Your task to perform on an android device: change the upload size in google photos Image 0: 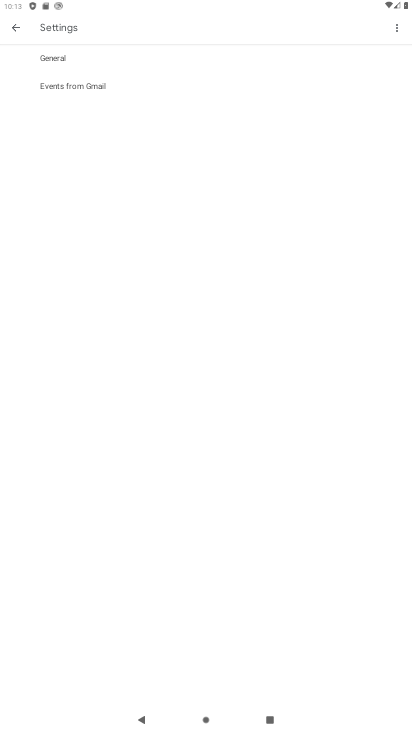
Step 0: press home button
Your task to perform on an android device: change the upload size in google photos Image 1: 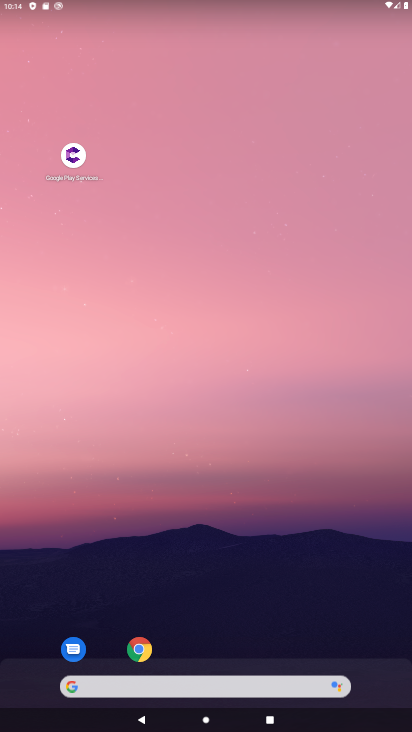
Step 1: drag from (244, 643) to (263, 82)
Your task to perform on an android device: change the upload size in google photos Image 2: 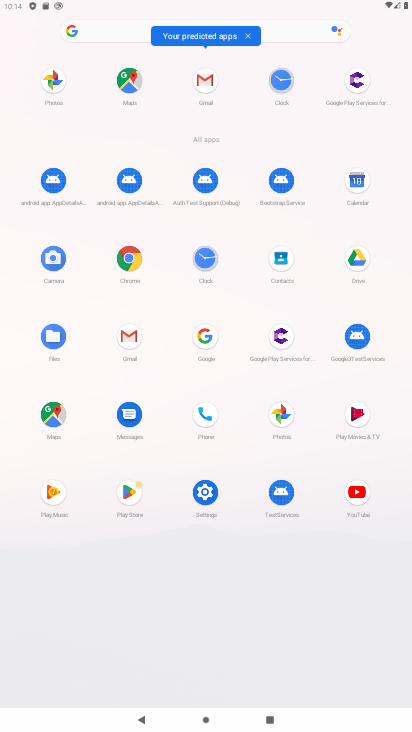
Step 2: click (50, 93)
Your task to perform on an android device: change the upload size in google photos Image 3: 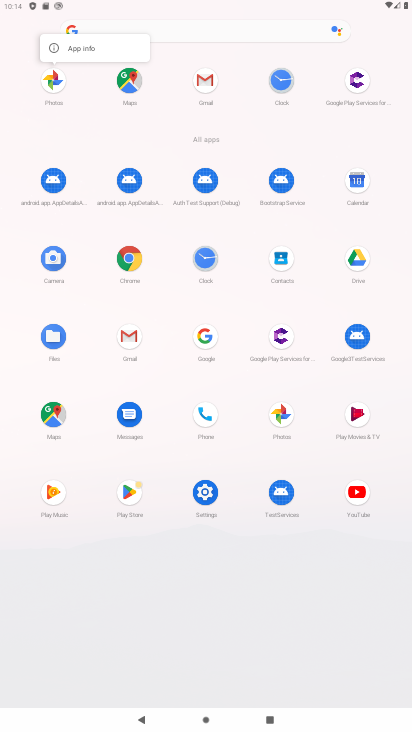
Step 3: click (50, 93)
Your task to perform on an android device: change the upload size in google photos Image 4: 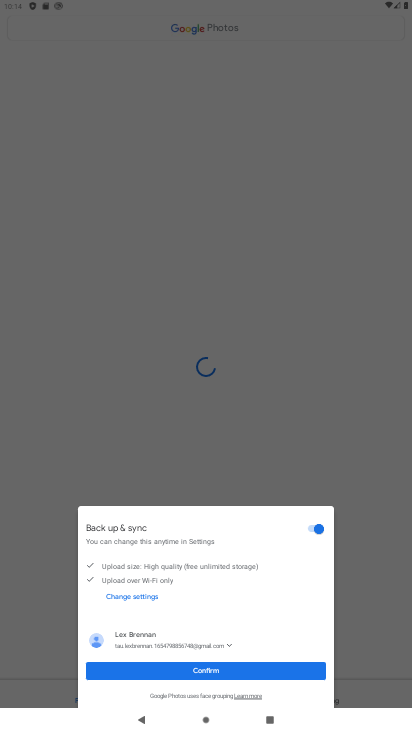
Step 4: click (186, 672)
Your task to perform on an android device: change the upload size in google photos Image 5: 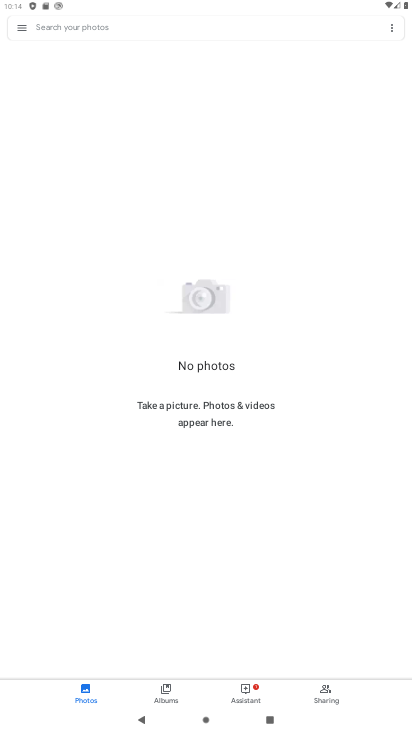
Step 5: click (20, 31)
Your task to perform on an android device: change the upload size in google photos Image 6: 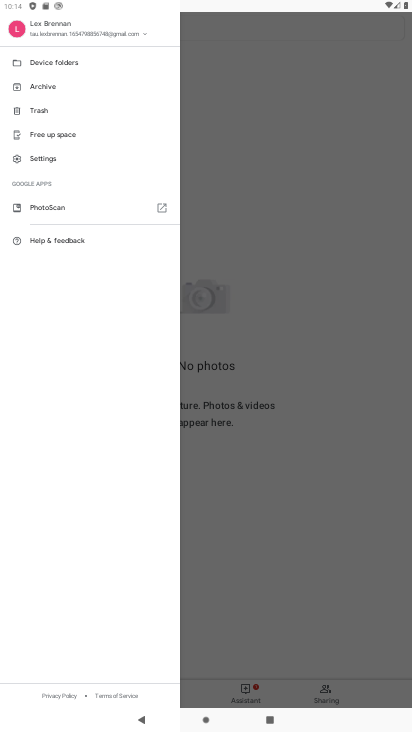
Step 6: click (93, 169)
Your task to perform on an android device: change the upload size in google photos Image 7: 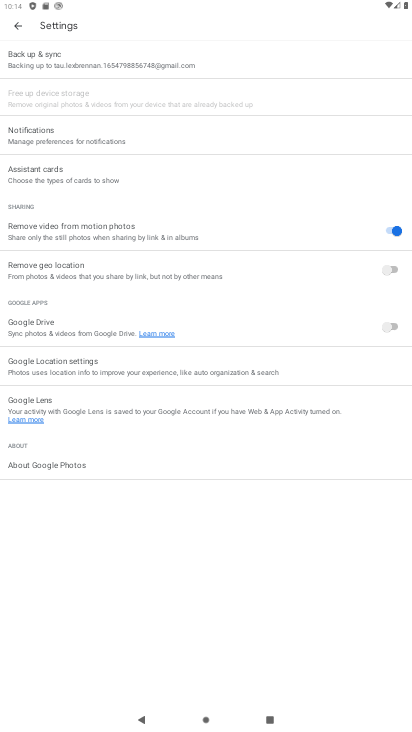
Step 7: click (179, 57)
Your task to perform on an android device: change the upload size in google photos Image 8: 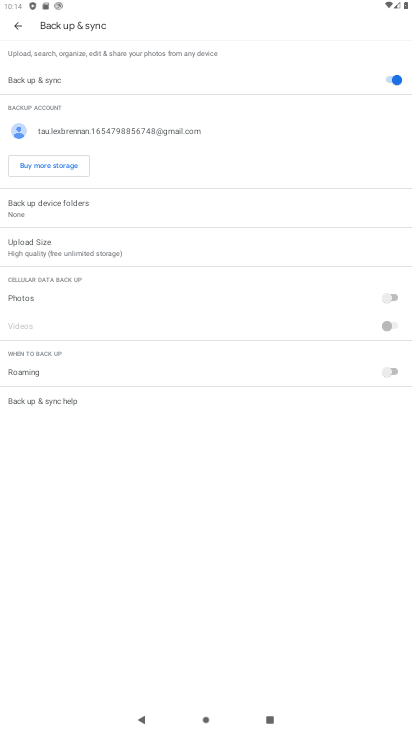
Step 8: click (126, 247)
Your task to perform on an android device: change the upload size in google photos Image 9: 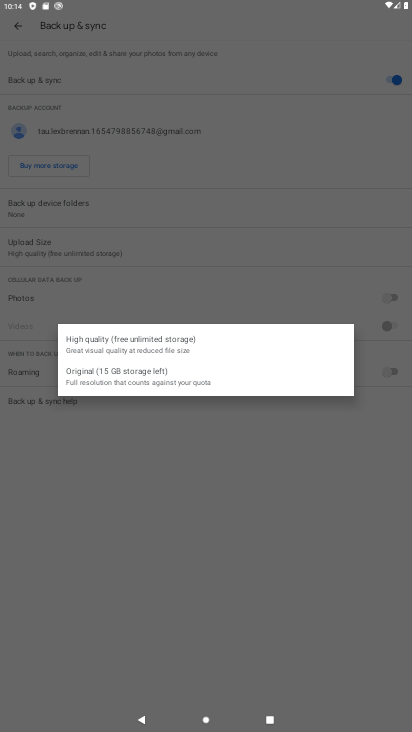
Step 9: click (155, 370)
Your task to perform on an android device: change the upload size in google photos Image 10: 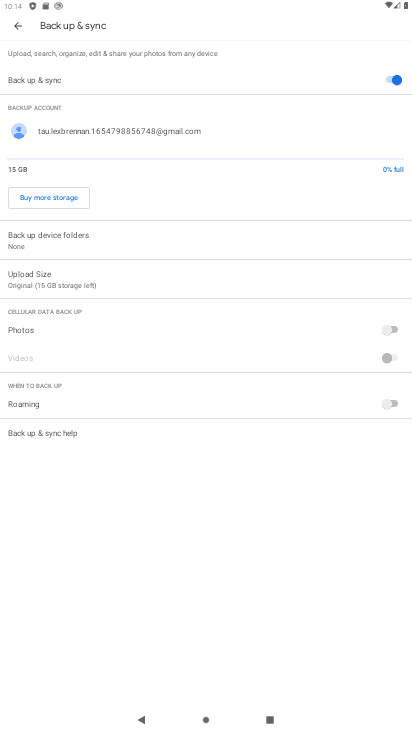
Step 10: task complete